Your task to perform on an android device: Open Android settings Image 0: 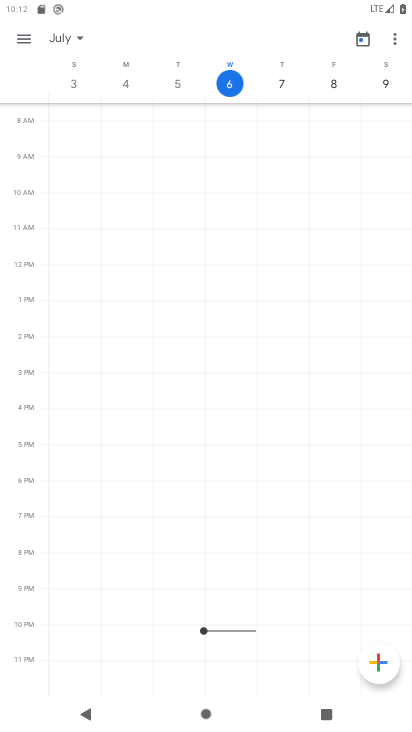
Step 0: press home button
Your task to perform on an android device: Open Android settings Image 1: 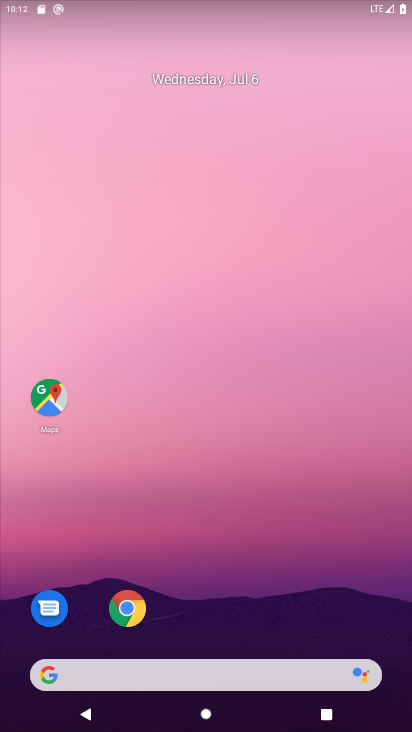
Step 1: drag from (208, 597) to (380, 368)
Your task to perform on an android device: Open Android settings Image 2: 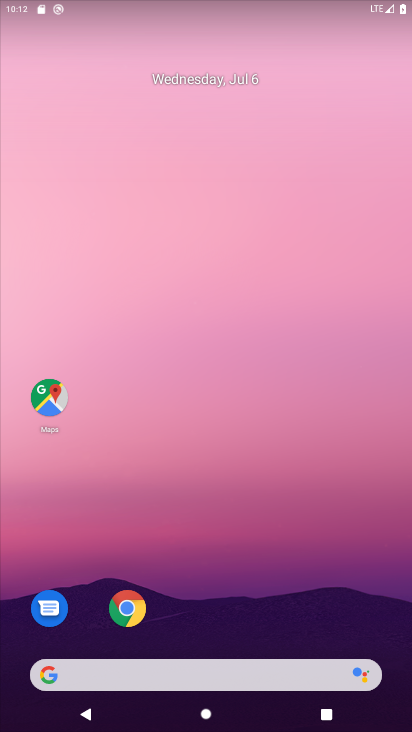
Step 2: drag from (211, 574) to (270, 19)
Your task to perform on an android device: Open Android settings Image 3: 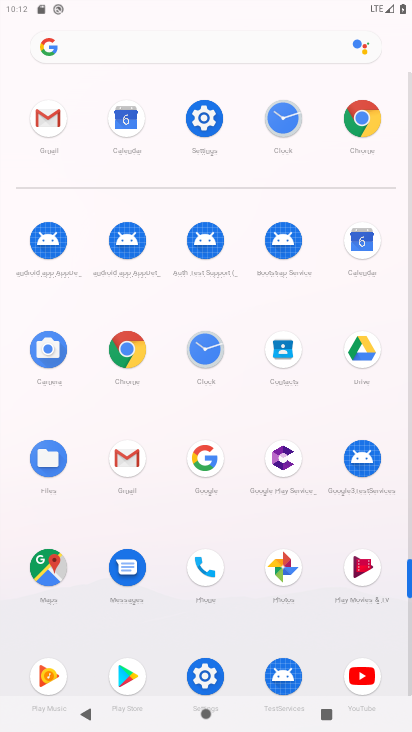
Step 3: click (210, 123)
Your task to perform on an android device: Open Android settings Image 4: 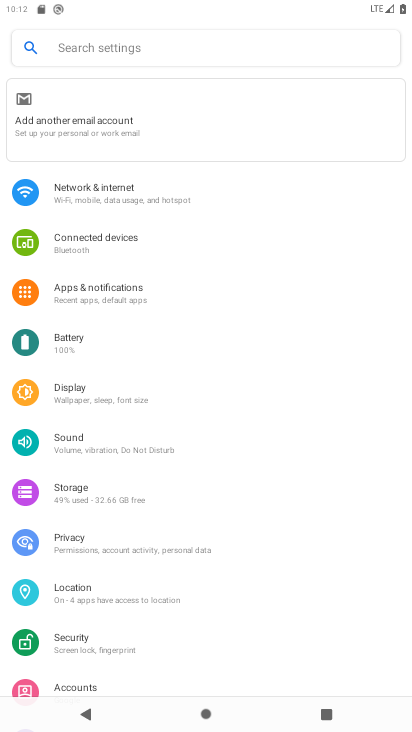
Step 4: drag from (142, 560) to (253, 4)
Your task to perform on an android device: Open Android settings Image 5: 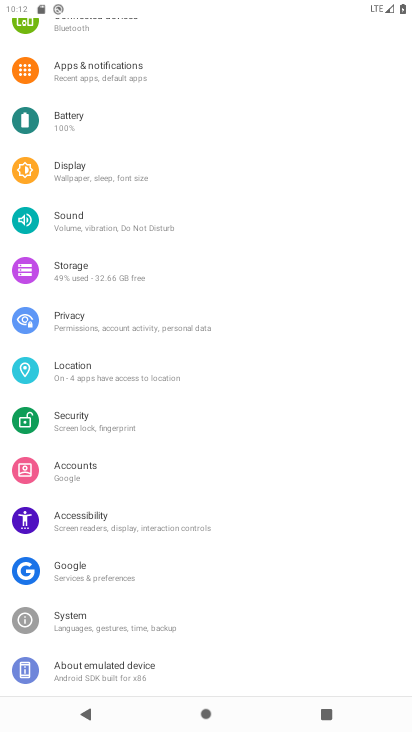
Step 5: click (104, 665)
Your task to perform on an android device: Open Android settings Image 6: 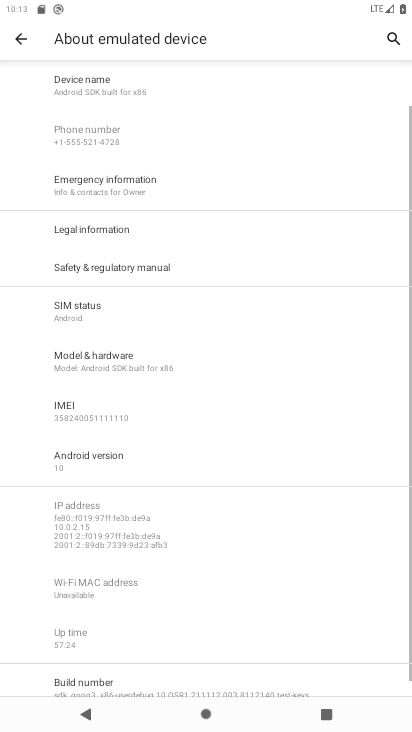
Step 6: click (101, 460)
Your task to perform on an android device: Open Android settings Image 7: 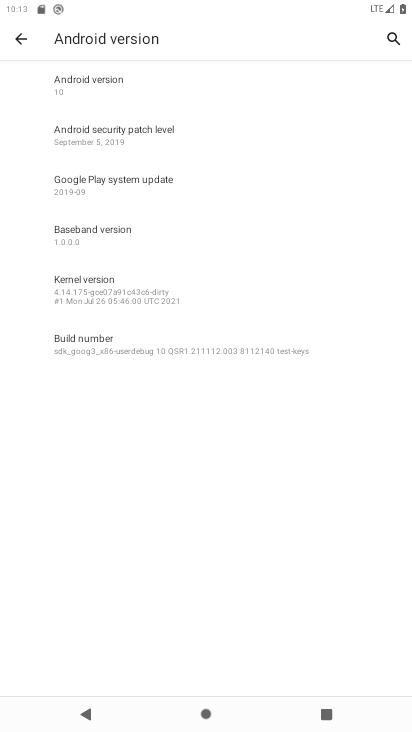
Step 7: task complete